Your task to perform on an android device: Open calendar and show me the third week of next month Image 0: 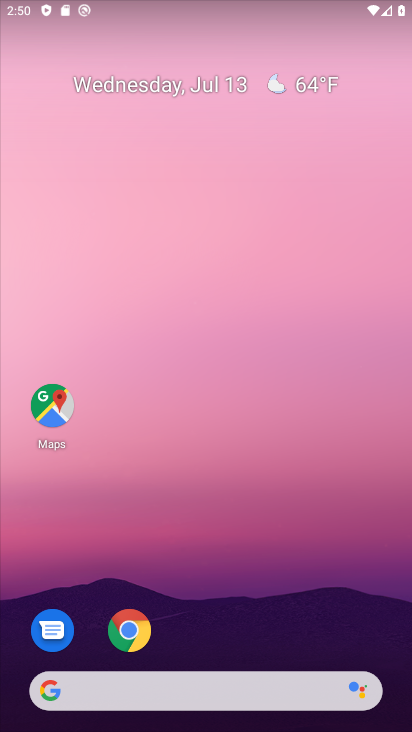
Step 0: drag from (288, 624) to (292, 381)
Your task to perform on an android device: Open calendar and show me the third week of next month Image 1: 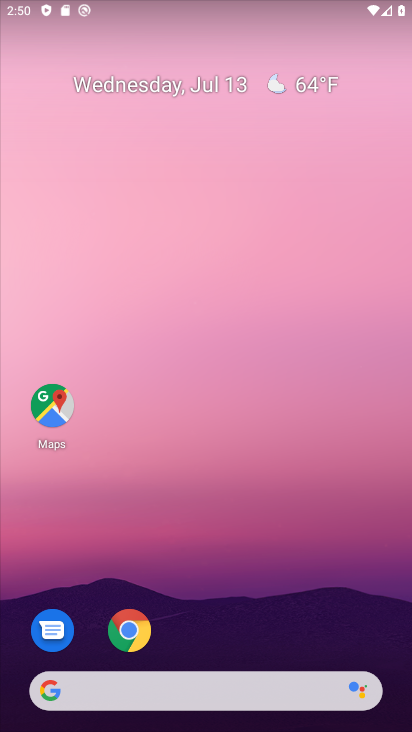
Step 1: drag from (287, 504) to (331, 132)
Your task to perform on an android device: Open calendar and show me the third week of next month Image 2: 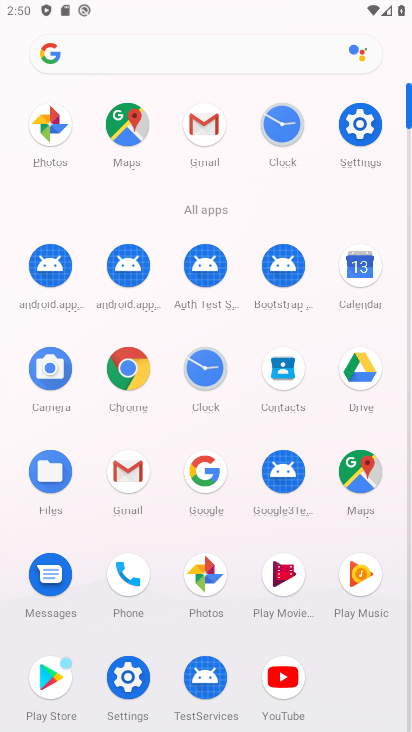
Step 2: click (362, 251)
Your task to perform on an android device: Open calendar and show me the third week of next month Image 3: 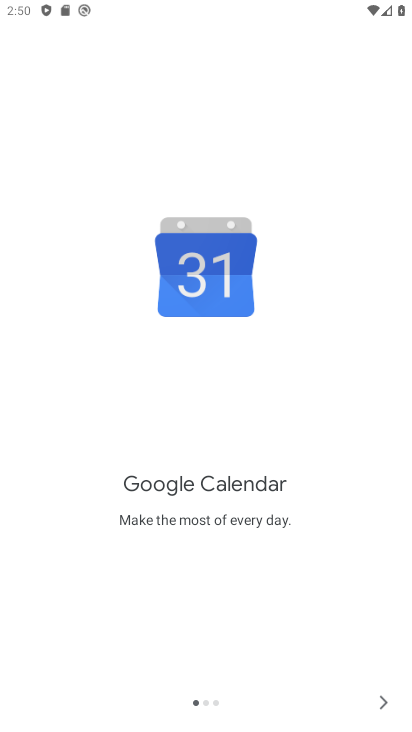
Step 3: click (380, 701)
Your task to perform on an android device: Open calendar and show me the third week of next month Image 4: 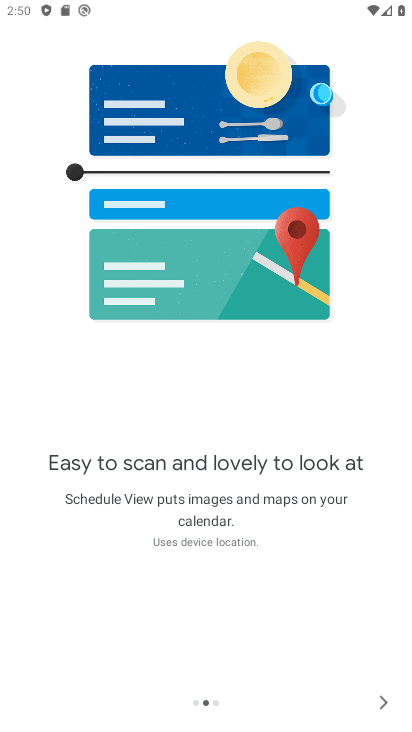
Step 4: click (380, 701)
Your task to perform on an android device: Open calendar and show me the third week of next month Image 5: 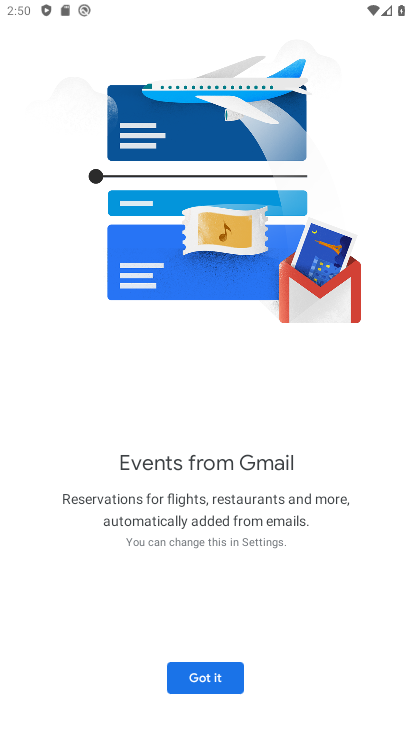
Step 5: click (217, 664)
Your task to perform on an android device: Open calendar and show me the third week of next month Image 6: 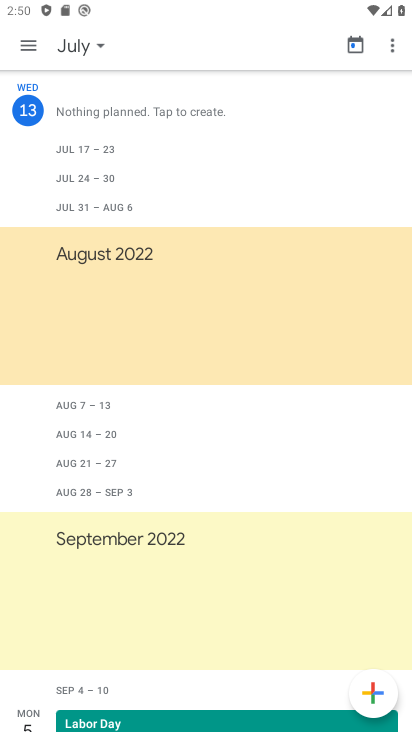
Step 6: click (88, 47)
Your task to perform on an android device: Open calendar and show me the third week of next month Image 7: 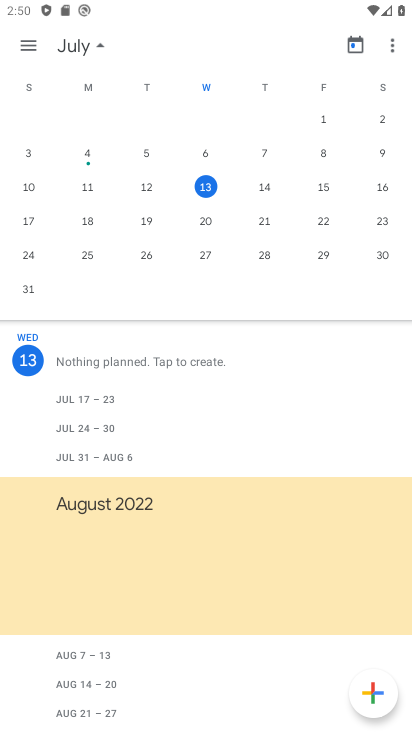
Step 7: drag from (381, 213) to (7, 223)
Your task to perform on an android device: Open calendar and show me the third week of next month Image 8: 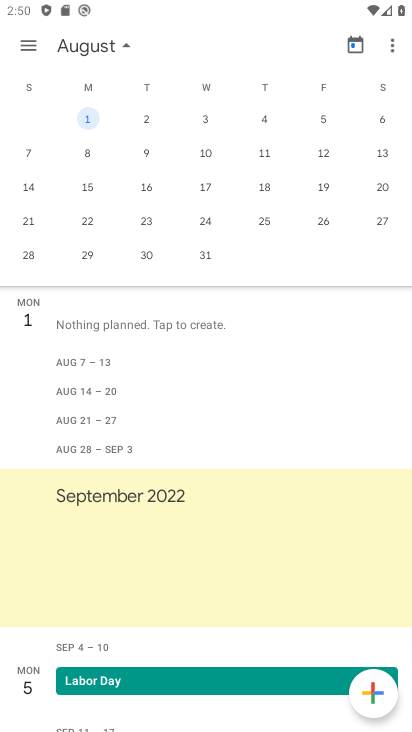
Step 8: click (35, 186)
Your task to perform on an android device: Open calendar and show me the third week of next month Image 9: 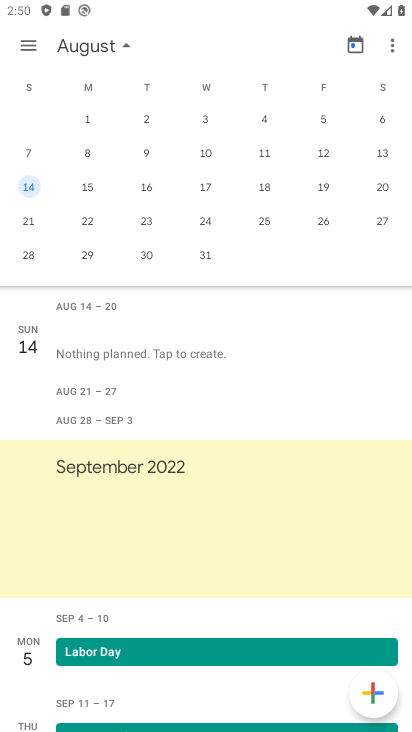
Step 9: task complete